Your task to perform on an android device: turn off translation in the chrome app Image 0: 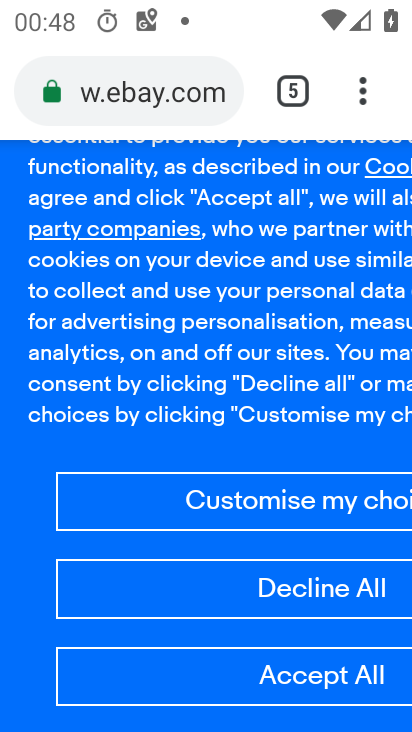
Step 0: click (367, 91)
Your task to perform on an android device: turn off translation in the chrome app Image 1: 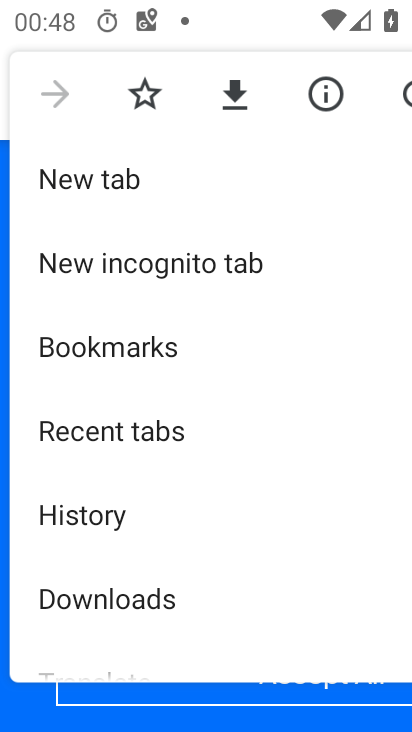
Step 1: drag from (128, 554) to (165, 109)
Your task to perform on an android device: turn off translation in the chrome app Image 2: 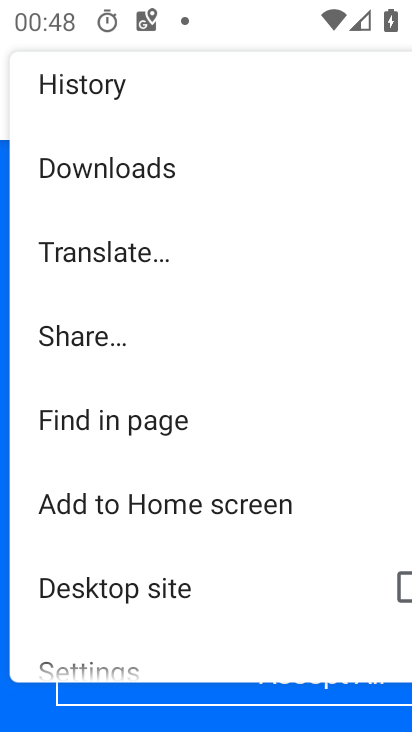
Step 2: click (111, 662)
Your task to perform on an android device: turn off translation in the chrome app Image 3: 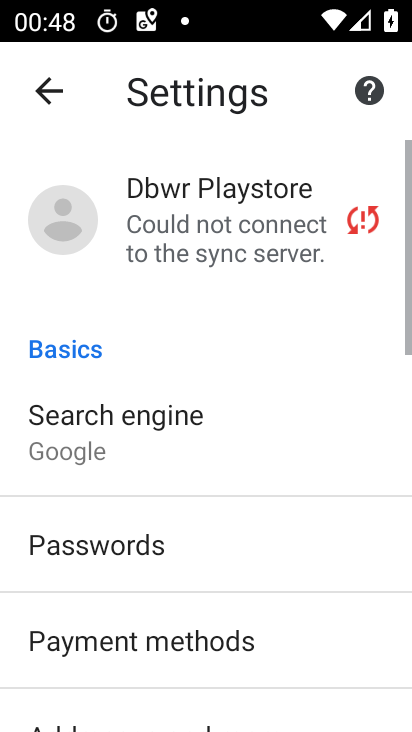
Step 3: drag from (111, 662) to (244, 133)
Your task to perform on an android device: turn off translation in the chrome app Image 4: 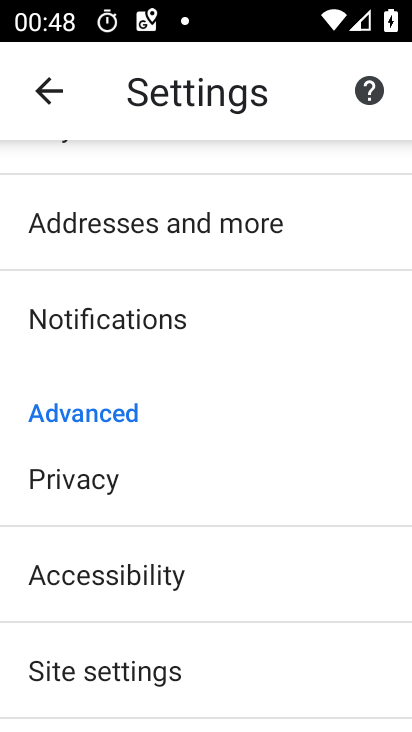
Step 4: drag from (92, 660) to (304, 55)
Your task to perform on an android device: turn off translation in the chrome app Image 5: 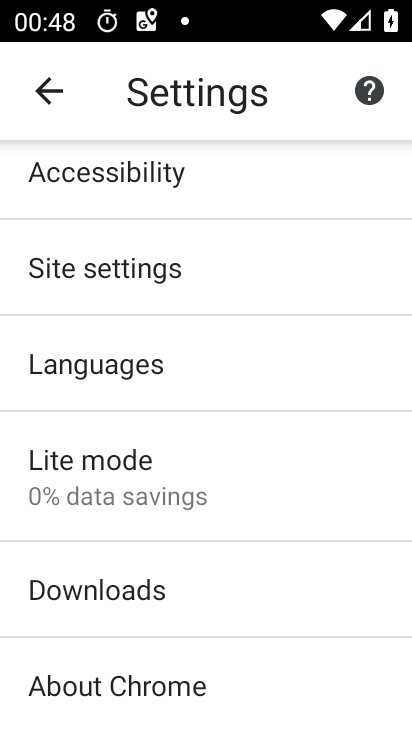
Step 5: click (132, 348)
Your task to perform on an android device: turn off translation in the chrome app Image 6: 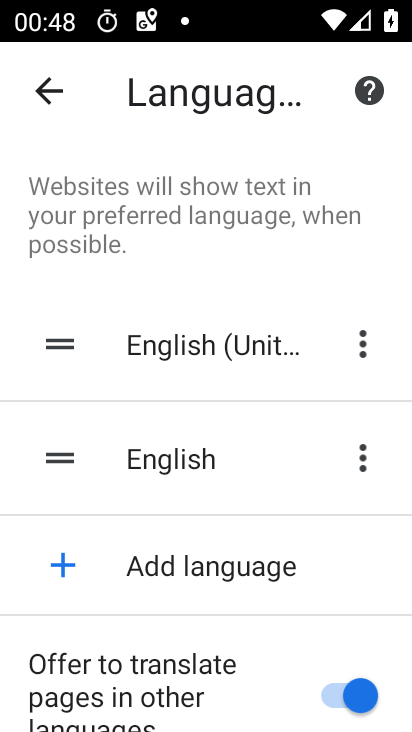
Step 6: click (334, 707)
Your task to perform on an android device: turn off translation in the chrome app Image 7: 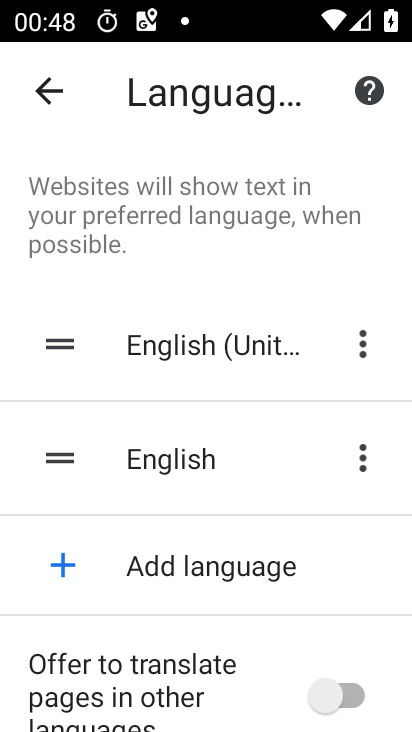
Step 7: task complete